Your task to perform on an android device: Show me productivity apps on the Play Store Image 0: 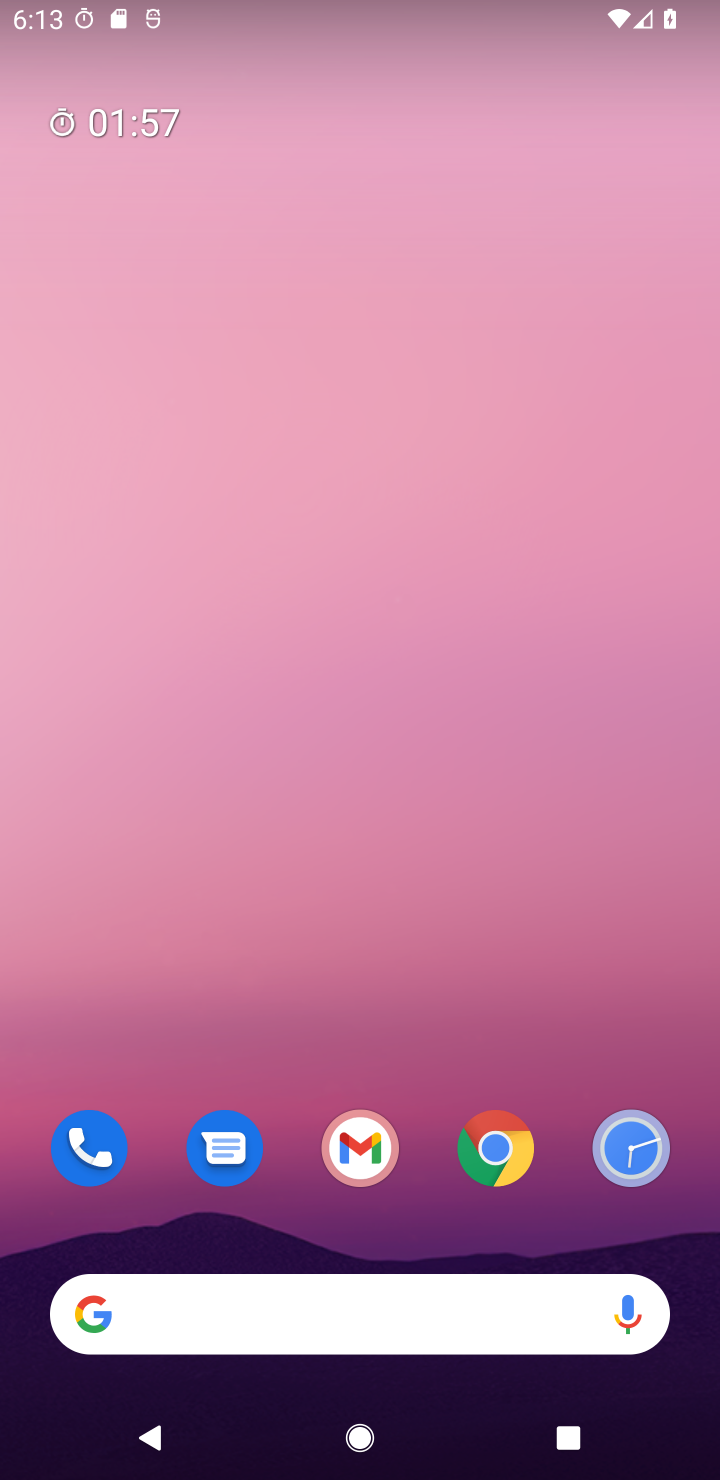
Step 0: drag from (338, 1241) to (368, 80)
Your task to perform on an android device: Show me productivity apps on the Play Store Image 1: 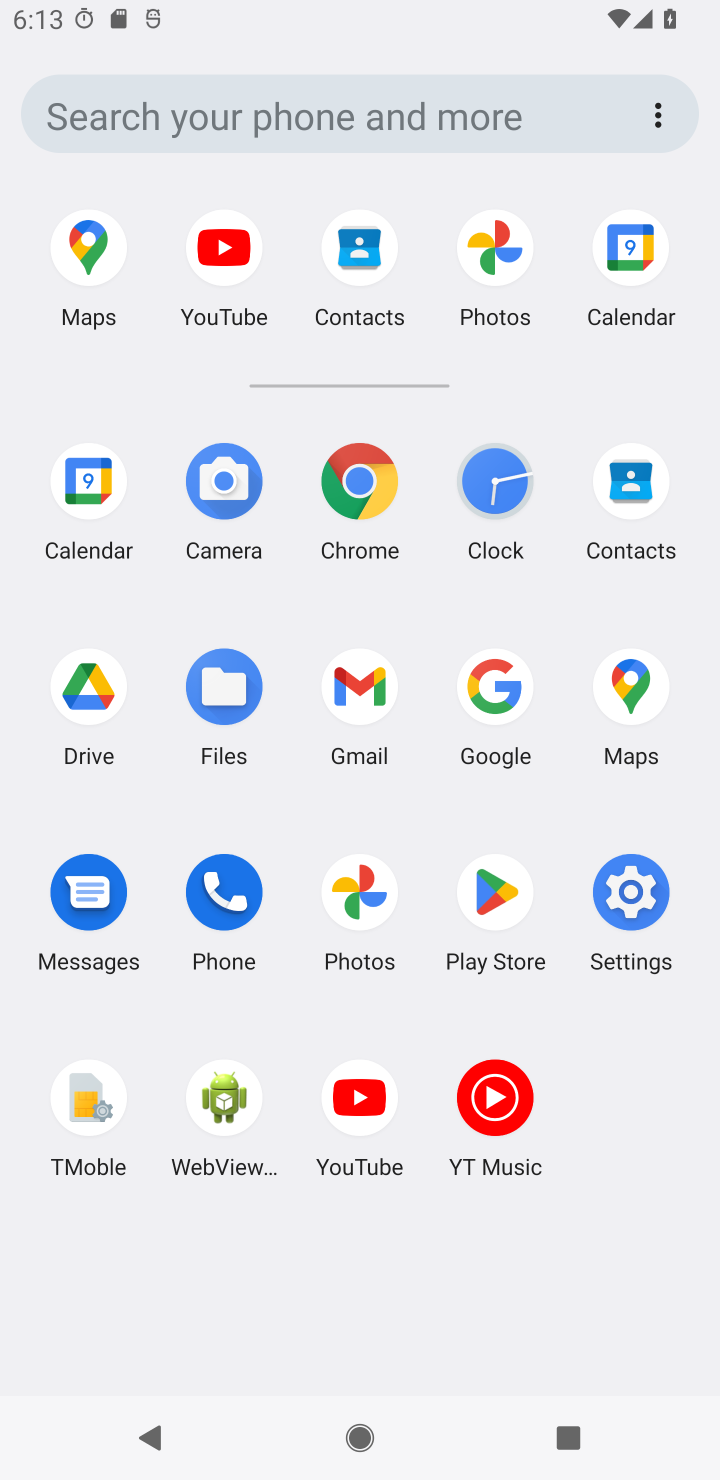
Step 1: drag from (390, 1217) to (403, 125)
Your task to perform on an android device: Show me productivity apps on the Play Store Image 2: 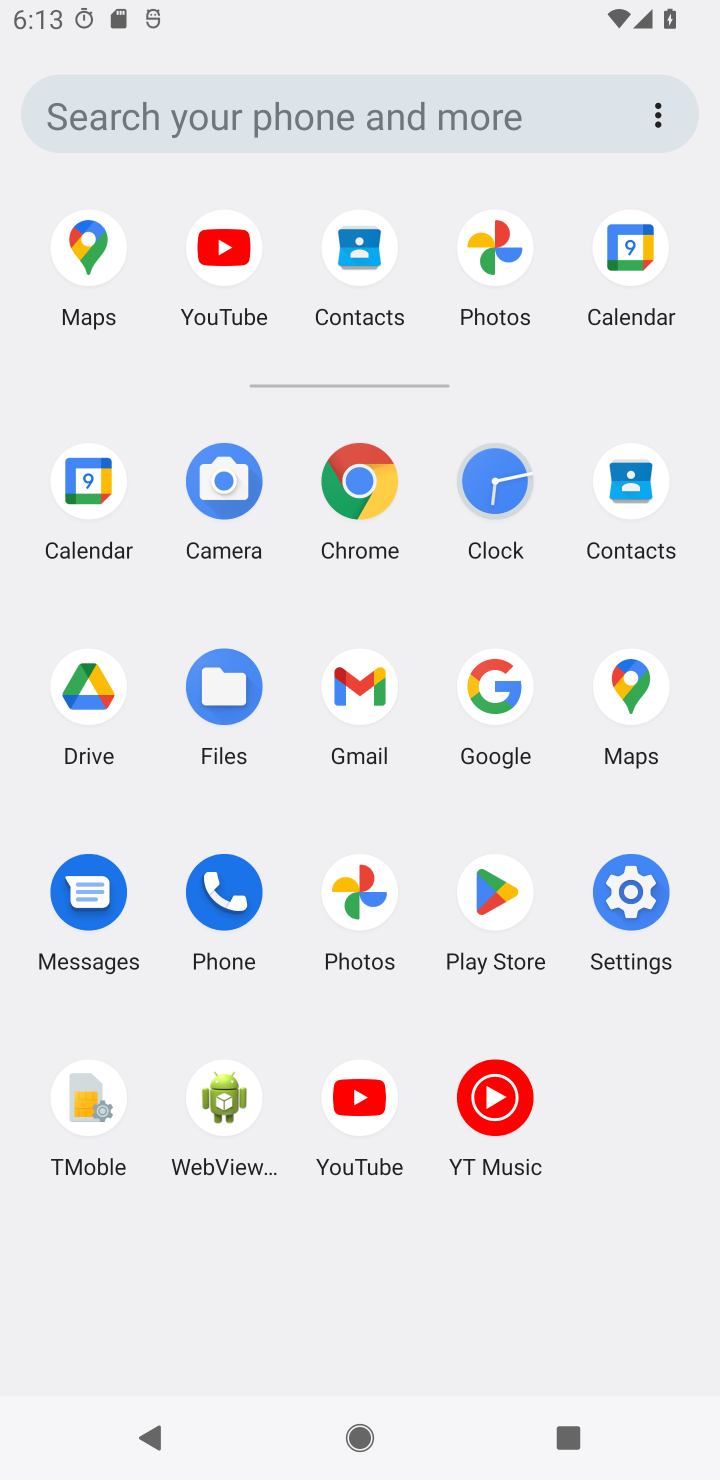
Step 2: click (478, 906)
Your task to perform on an android device: Show me productivity apps on the Play Store Image 3: 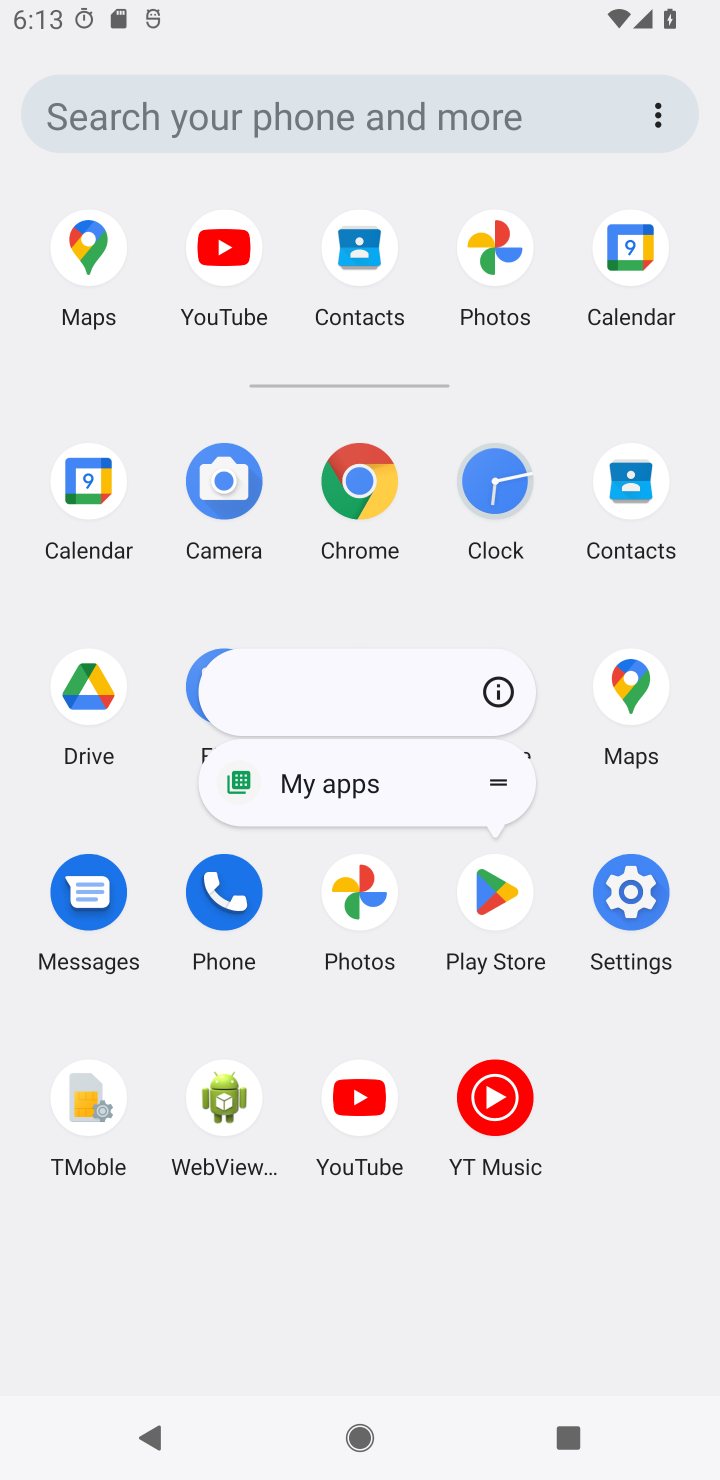
Step 3: click (480, 908)
Your task to perform on an android device: Show me productivity apps on the Play Store Image 4: 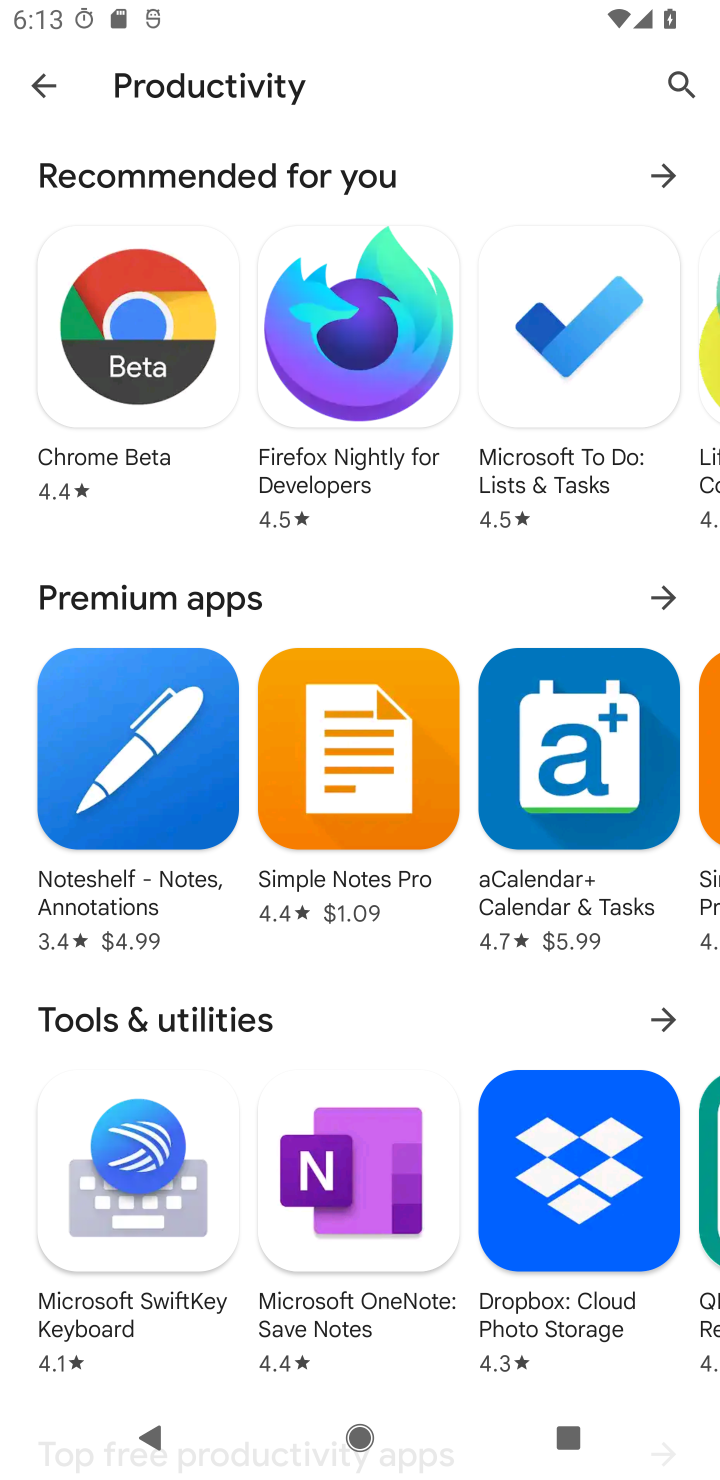
Step 4: click (457, 462)
Your task to perform on an android device: Show me productivity apps on the Play Store Image 5: 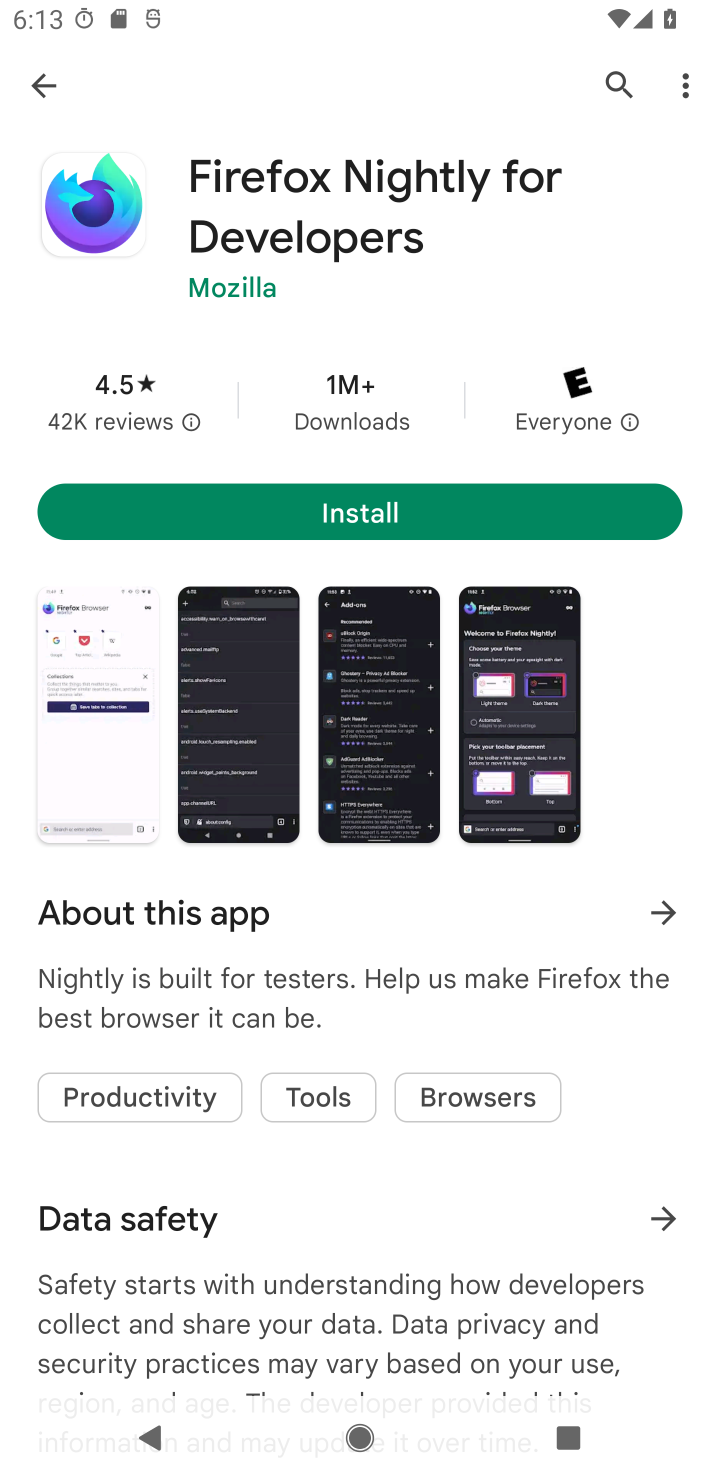
Step 5: task complete